Your task to perform on an android device: check out phone information Image 0: 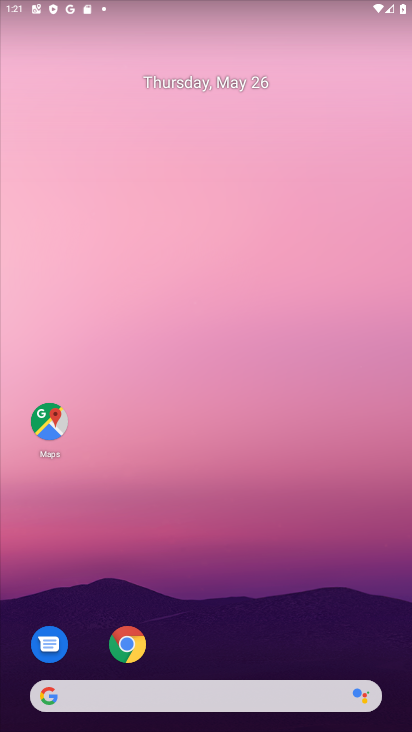
Step 0: drag from (212, 591) to (216, 315)
Your task to perform on an android device: check out phone information Image 1: 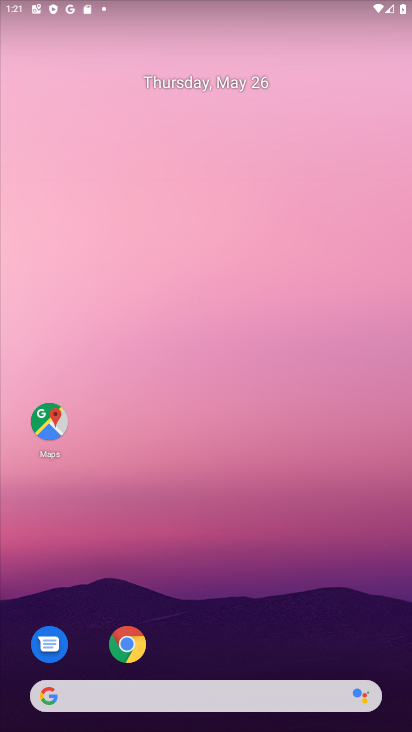
Step 1: drag from (247, 666) to (251, 122)
Your task to perform on an android device: check out phone information Image 2: 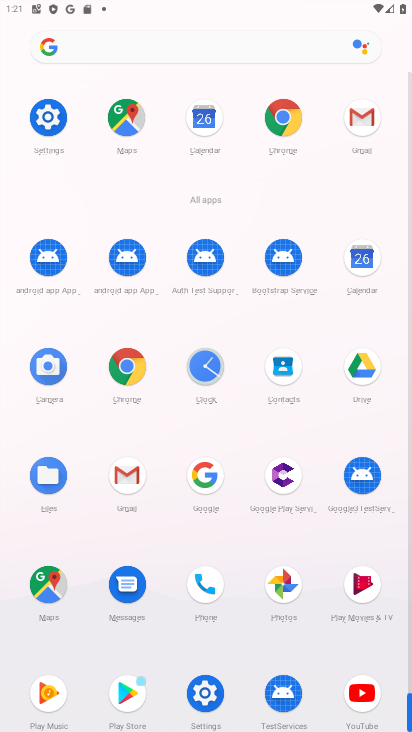
Step 2: click (37, 113)
Your task to perform on an android device: check out phone information Image 3: 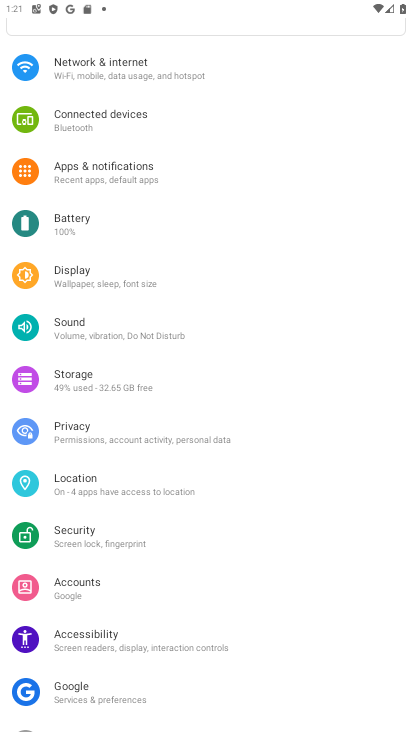
Step 3: drag from (194, 572) to (228, 287)
Your task to perform on an android device: check out phone information Image 4: 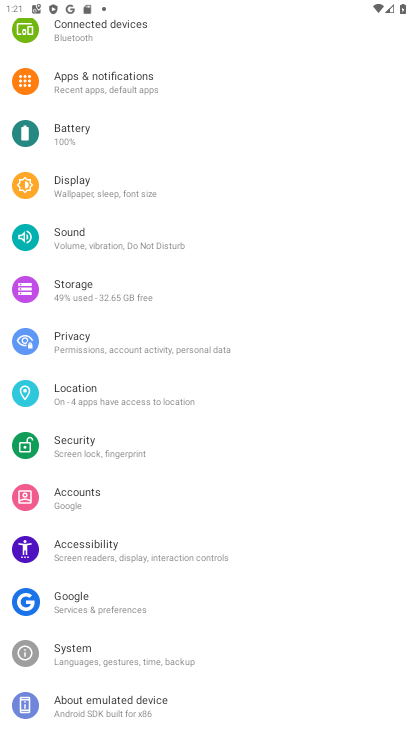
Step 4: click (123, 694)
Your task to perform on an android device: check out phone information Image 5: 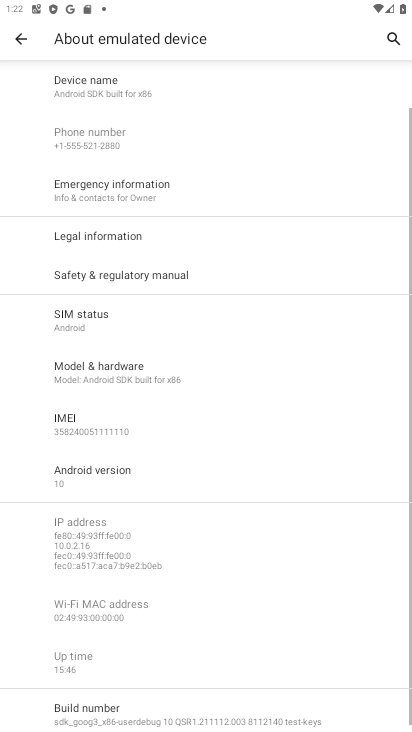
Step 5: task complete